Your task to perform on an android device: Open Reddit.com Image 0: 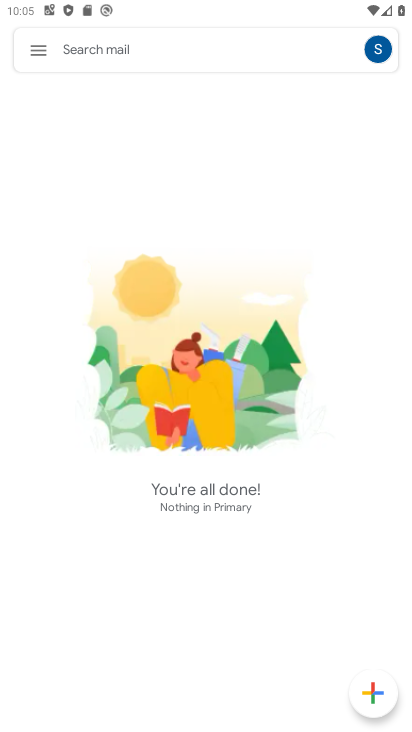
Step 0: press home button
Your task to perform on an android device: Open Reddit.com Image 1: 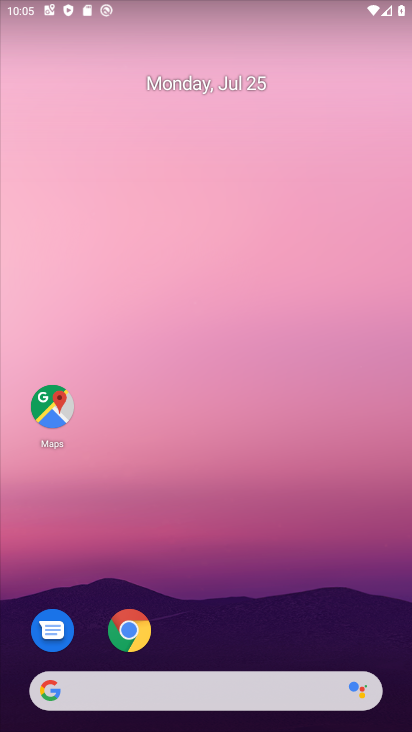
Step 1: drag from (337, 581) to (345, 75)
Your task to perform on an android device: Open Reddit.com Image 2: 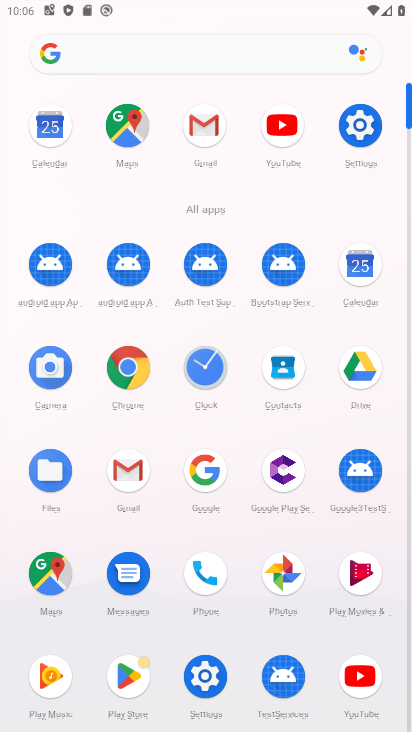
Step 2: click (128, 366)
Your task to perform on an android device: Open Reddit.com Image 3: 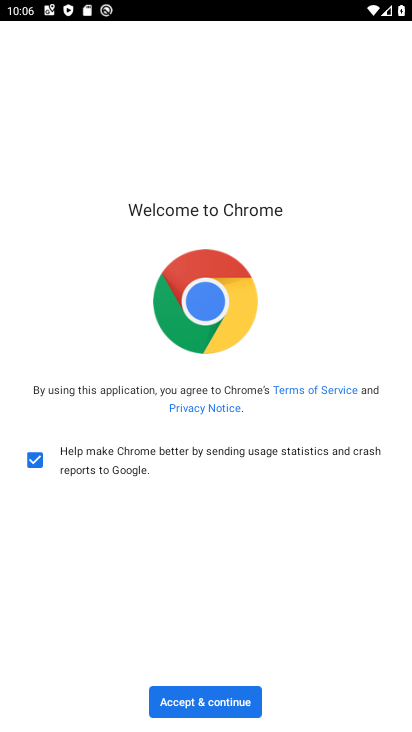
Step 3: click (188, 701)
Your task to perform on an android device: Open Reddit.com Image 4: 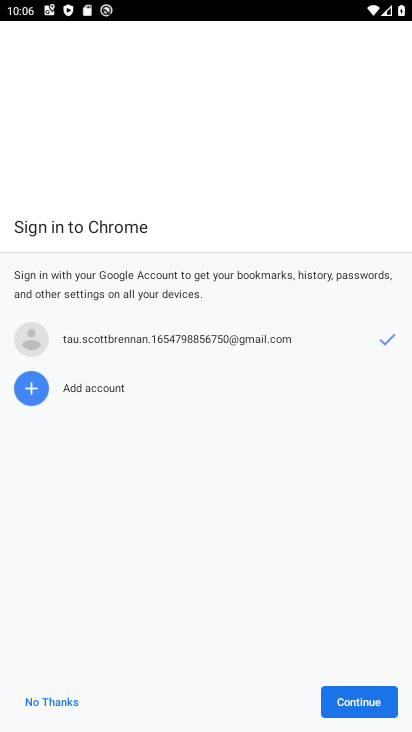
Step 4: click (347, 708)
Your task to perform on an android device: Open Reddit.com Image 5: 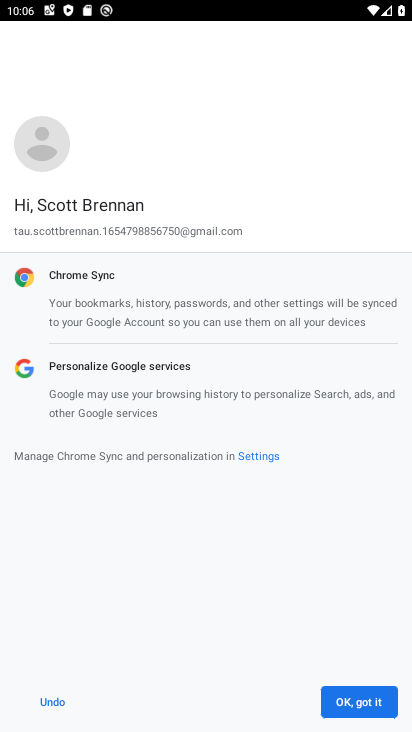
Step 5: click (347, 708)
Your task to perform on an android device: Open Reddit.com Image 6: 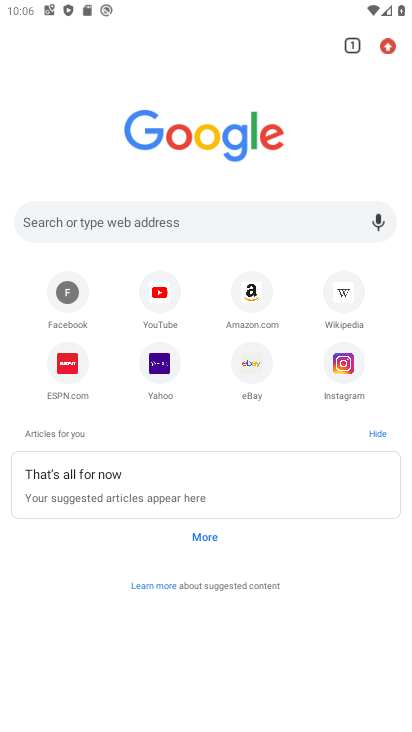
Step 6: click (285, 220)
Your task to perform on an android device: Open Reddit.com Image 7: 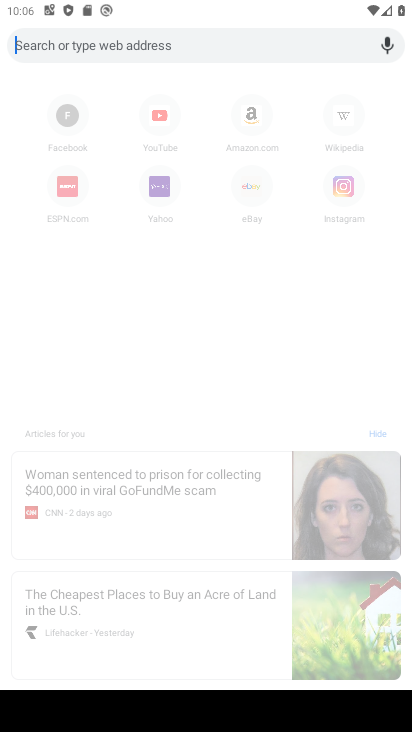
Step 7: type "reddit.com"
Your task to perform on an android device: Open Reddit.com Image 8: 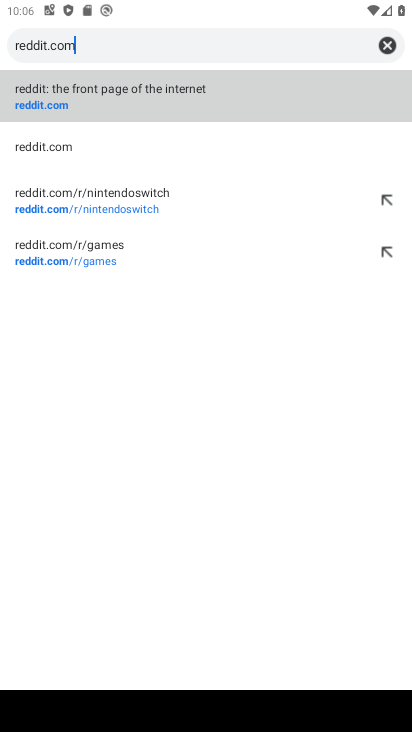
Step 8: click (300, 110)
Your task to perform on an android device: Open Reddit.com Image 9: 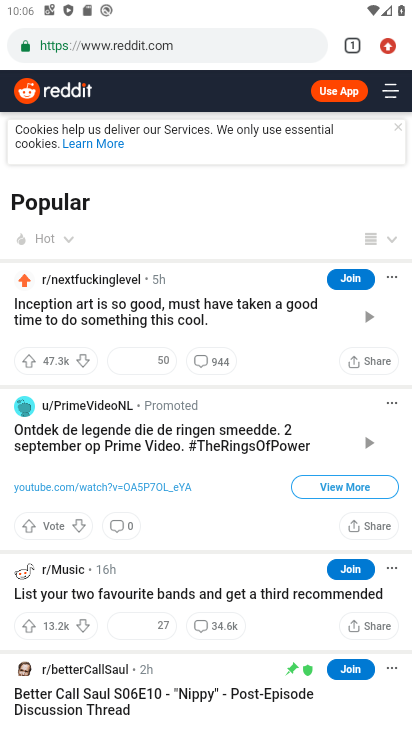
Step 9: task complete